Your task to perform on an android device: snooze an email in the gmail app Image 0: 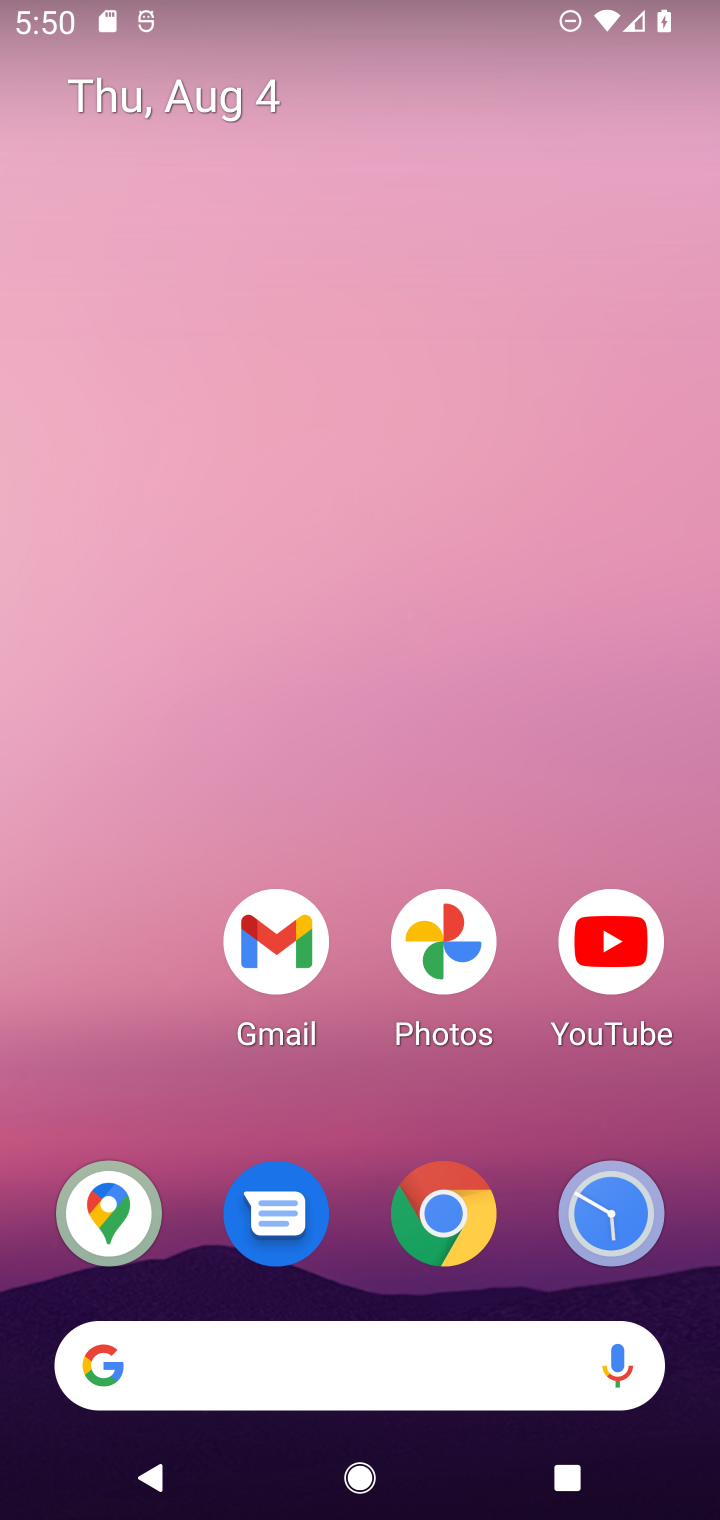
Step 0: drag from (174, 1083) to (202, 395)
Your task to perform on an android device: snooze an email in the gmail app Image 1: 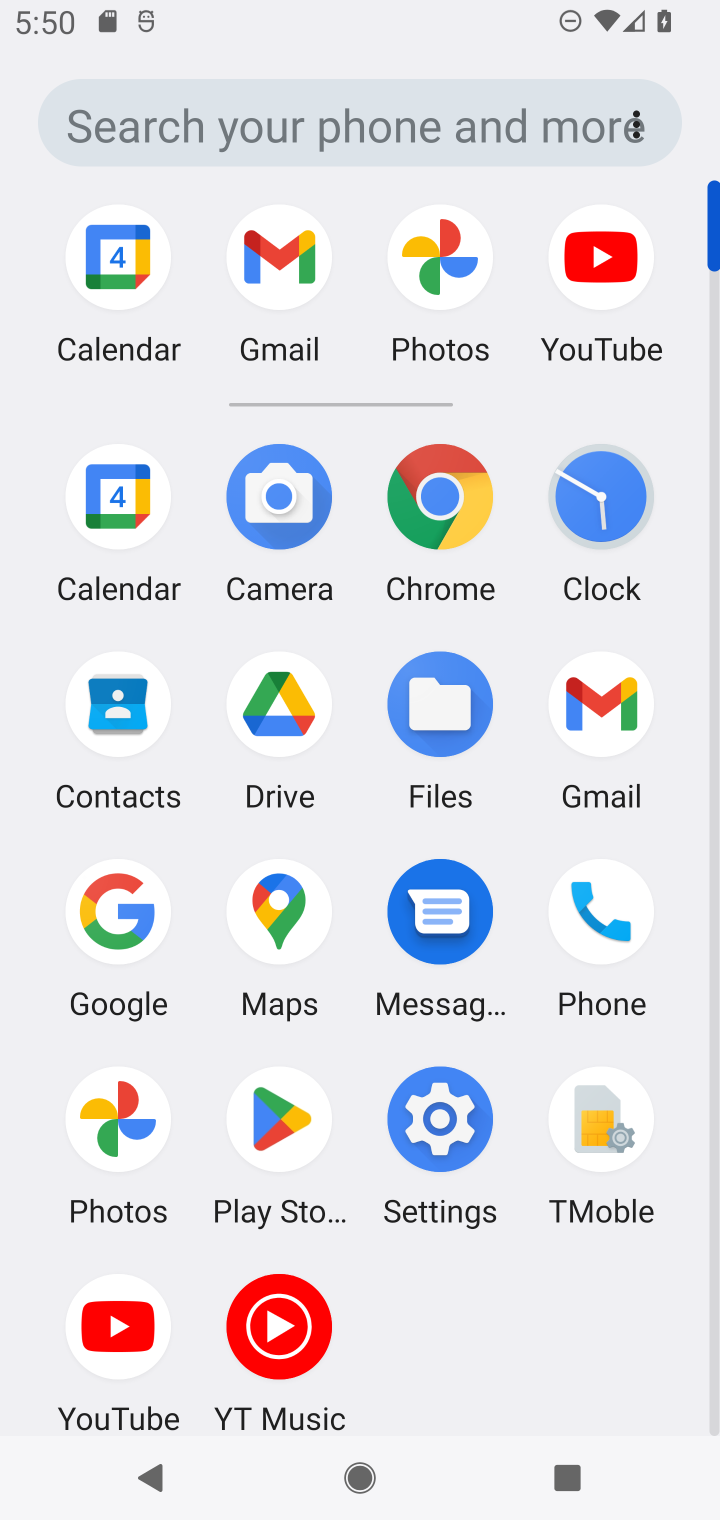
Step 1: click (608, 705)
Your task to perform on an android device: snooze an email in the gmail app Image 2: 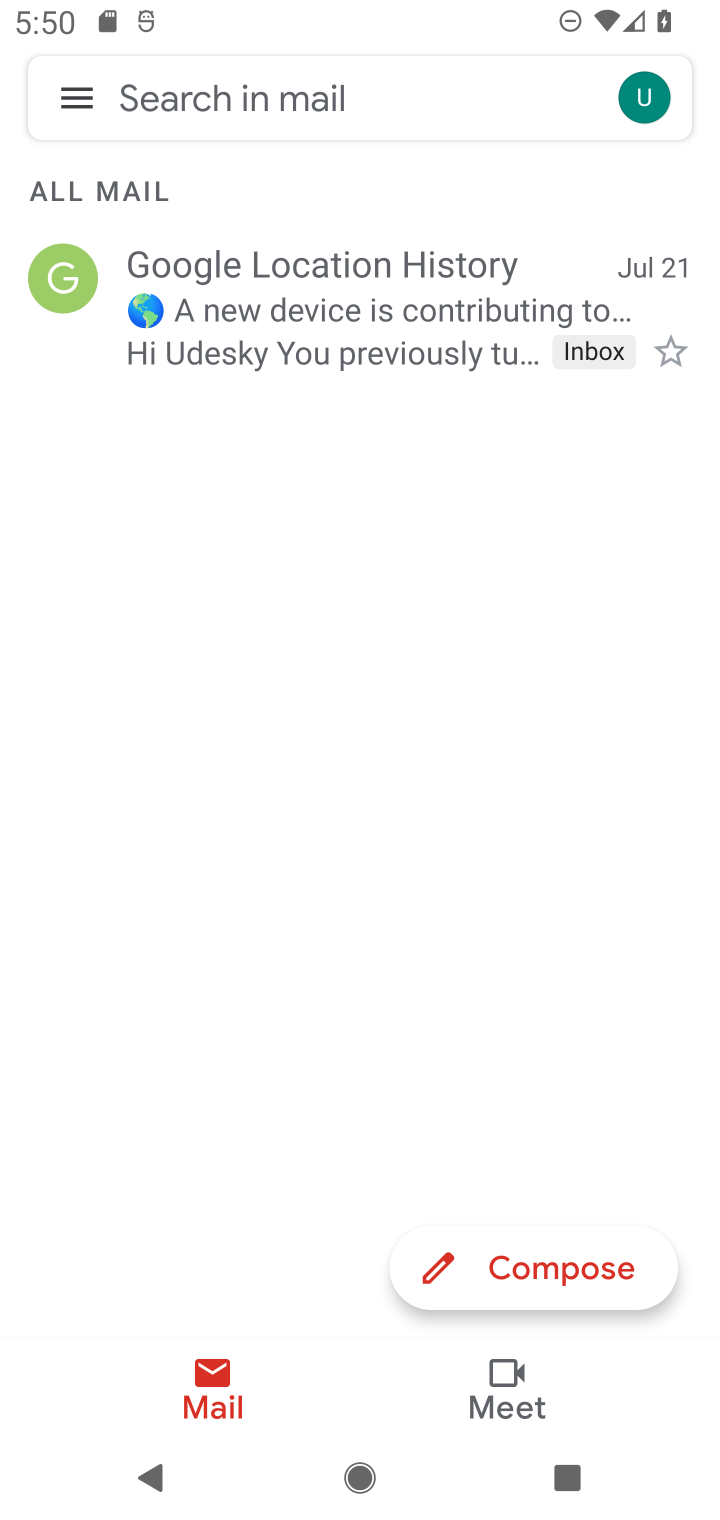
Step 2: click (64, 95)
Your task to perform on an android device: snooze an email in the gmail app Image 3: 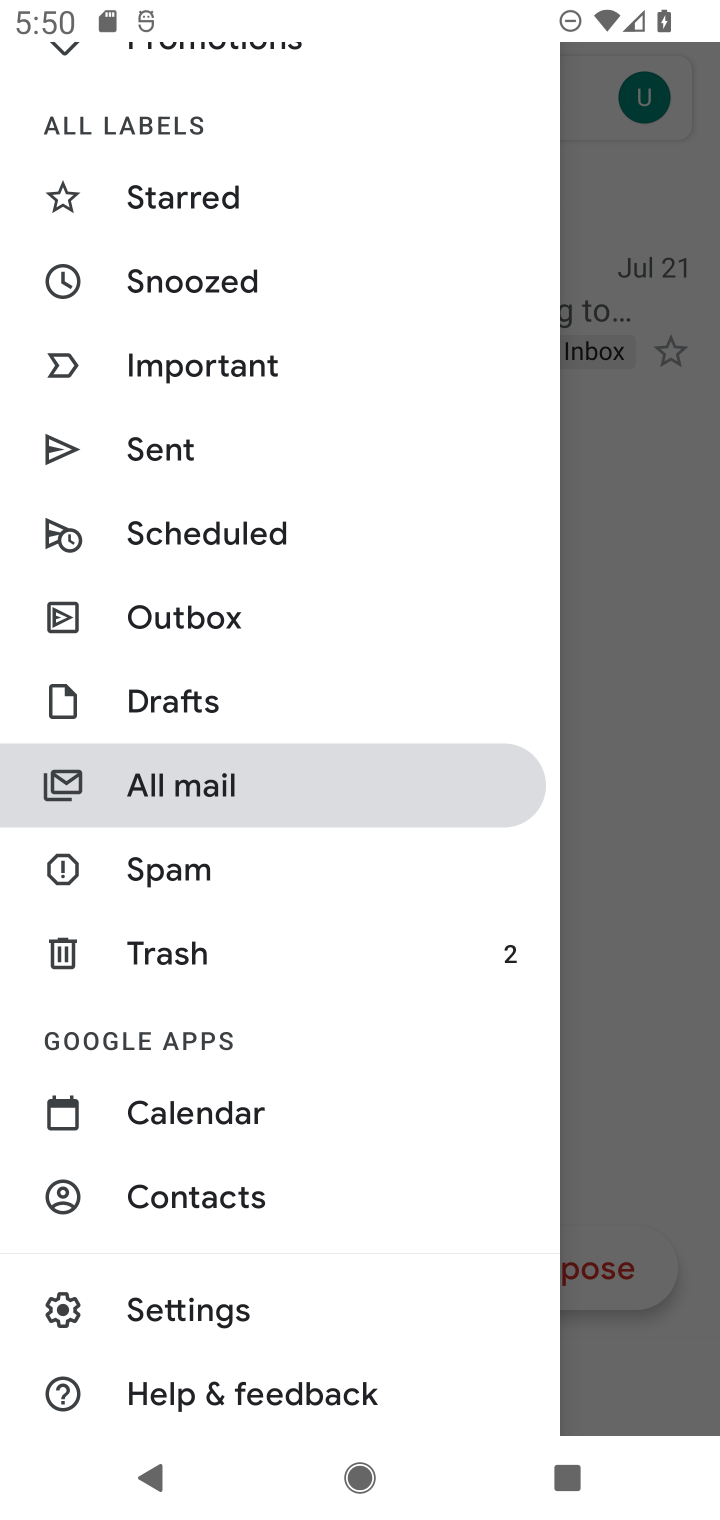
Step 3: drag from (427, 1027) to (416, 738)
Your task to perform on an android device: snooze an email in the gmail app Image 4: 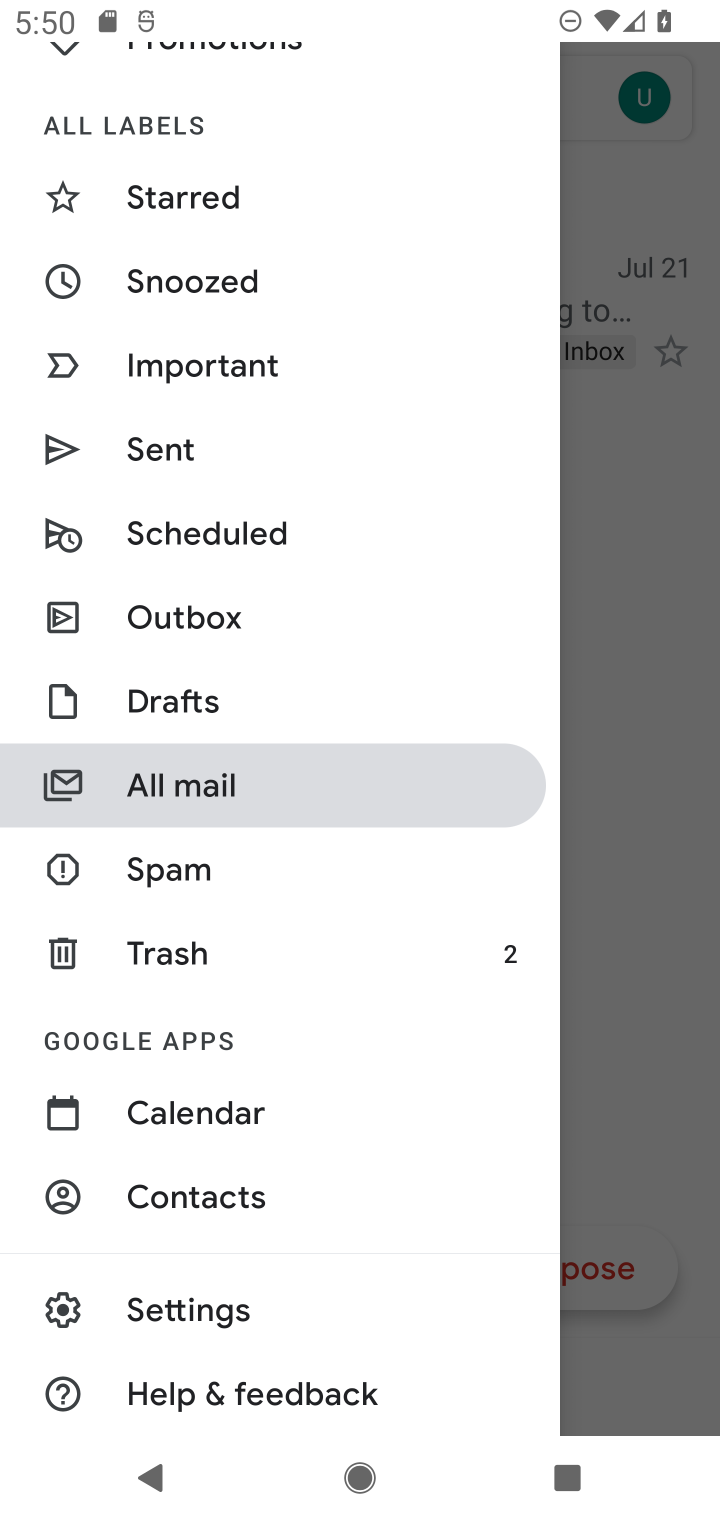
Step 4: drag from (402, 550) to (392, 969)
Your task to perform on an android device: snooze an email in the gmail app Image 5: 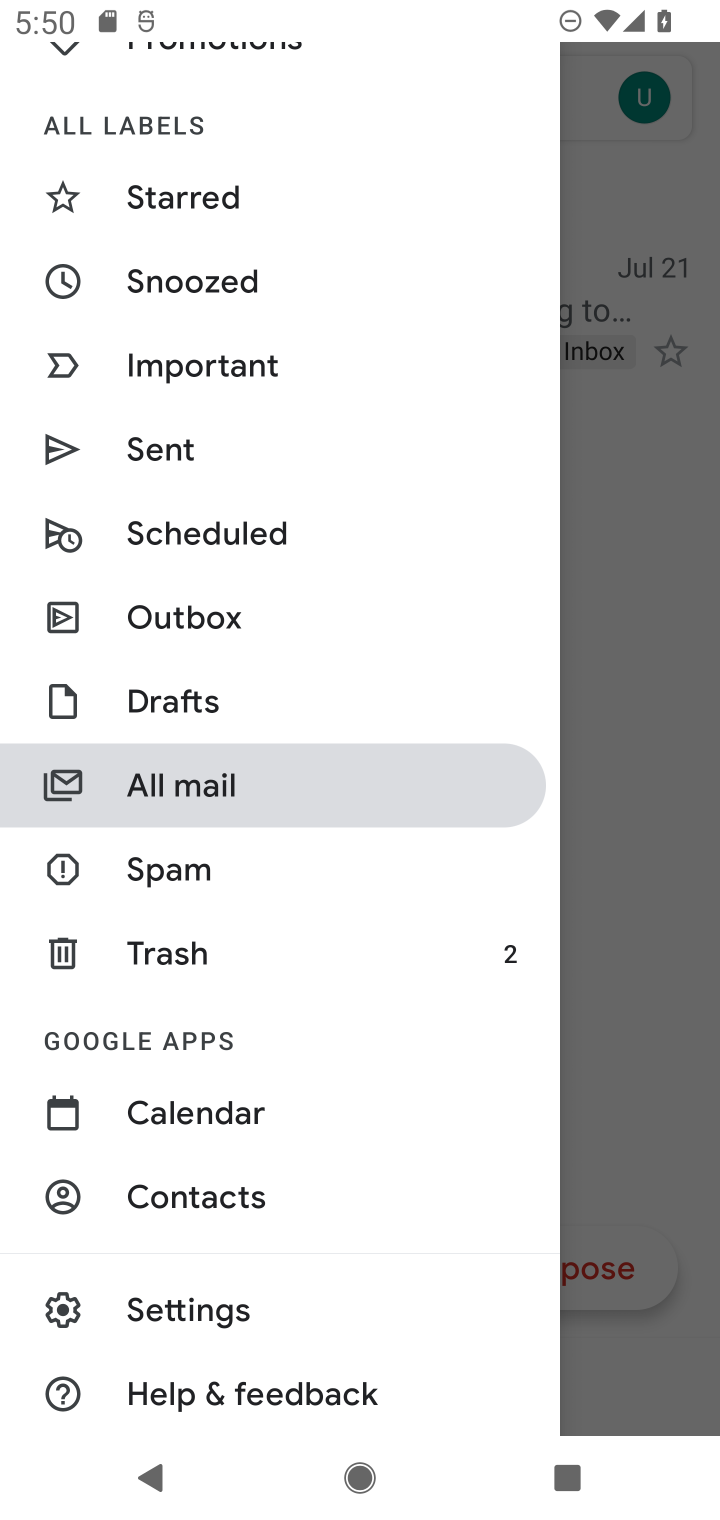
Step 5: click (234, 278)
Your task to perform on an android device: snooze an email in the gmail app Image 6: 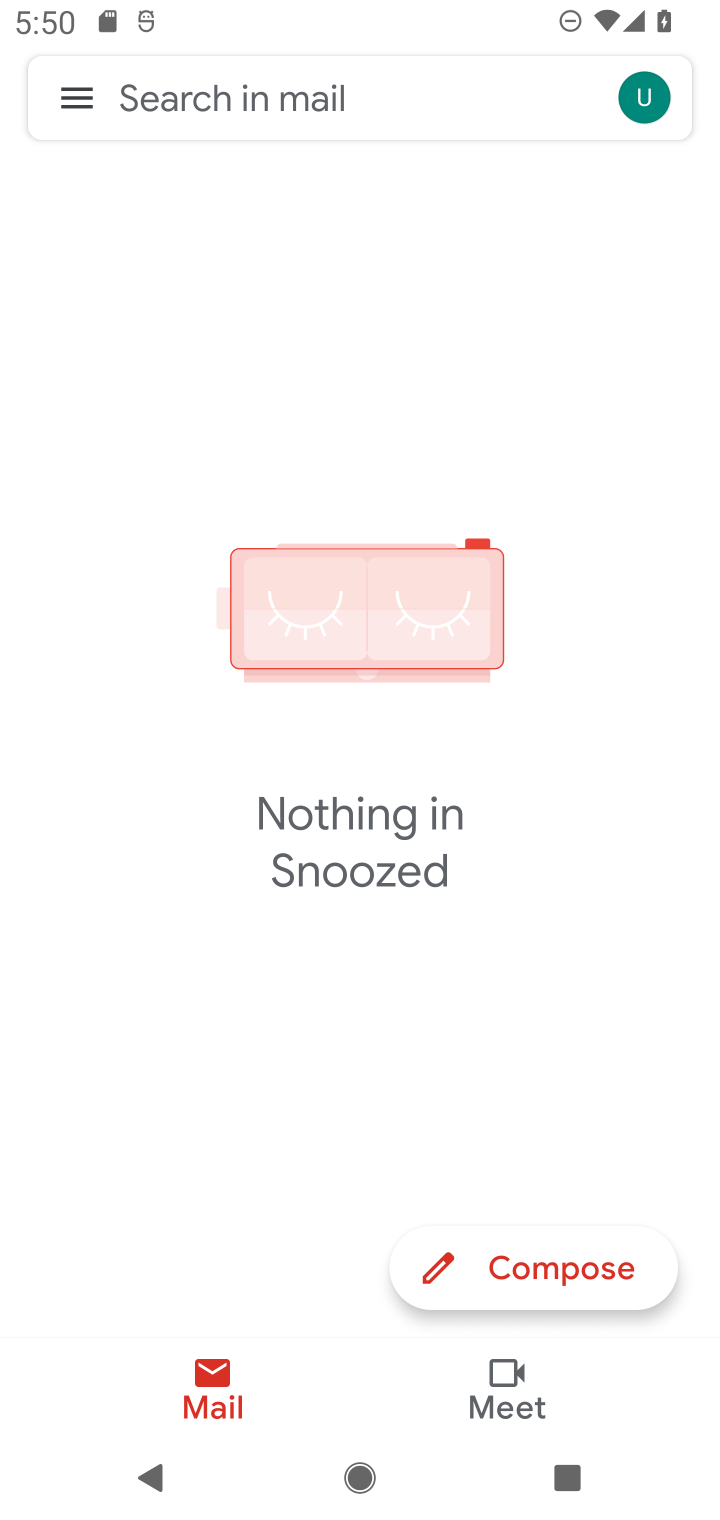
Step 6: task complete